Your task to perform on an android device: Search for lg ultragear on costco.com, select the first entry, and add it to the cart. Image 0: 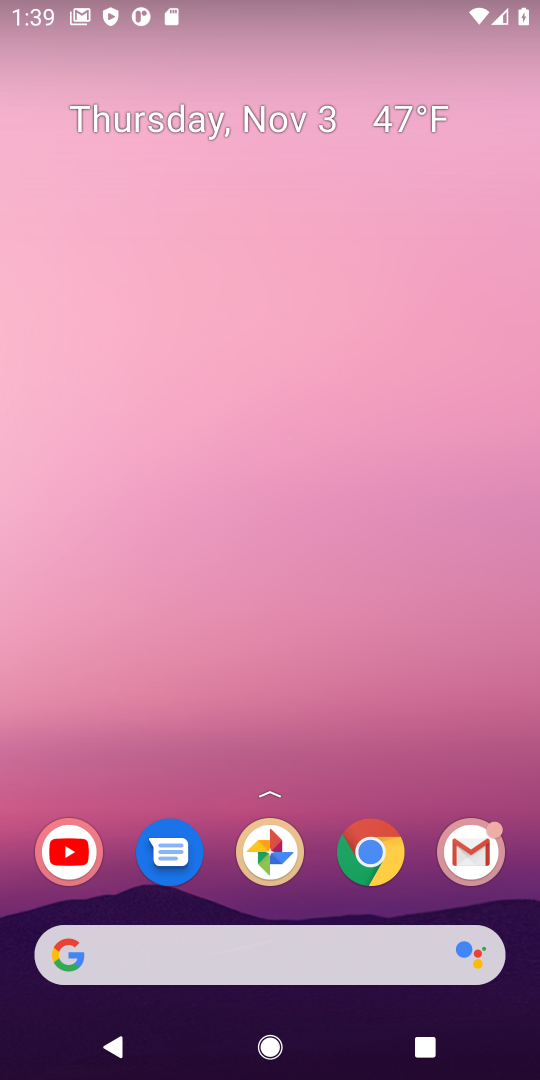
Step 0: click (377, 862)
Your task to perform on an android device: Search for lg ultragear on costco.com, select the first entry, and add it to the cart. Image 1: 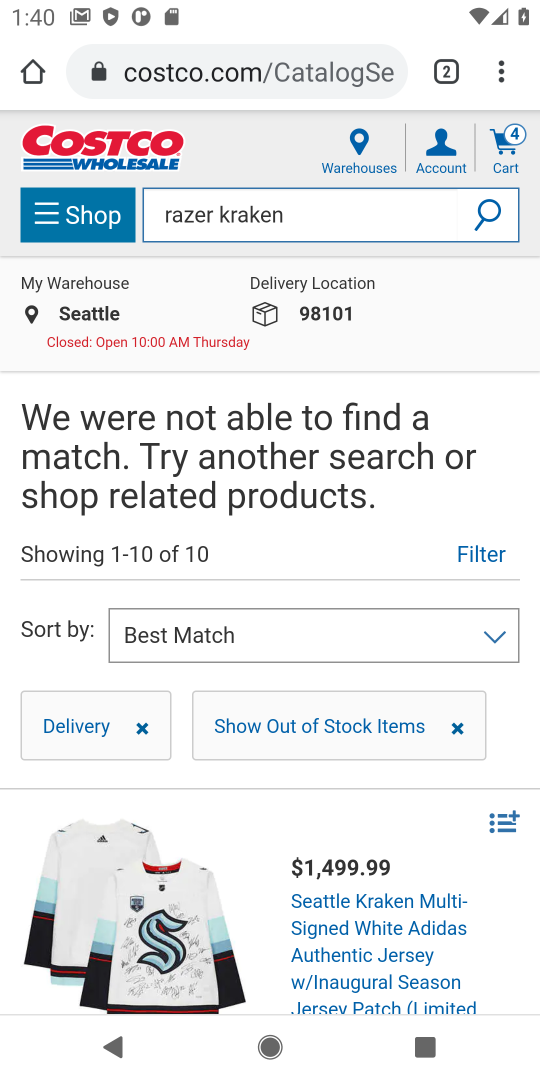
Step 1: click (310, 221)
Your task to perform on an android device: Search for lg ultragear on costco.com, select the first entry, and add it to the cart. Image 2: 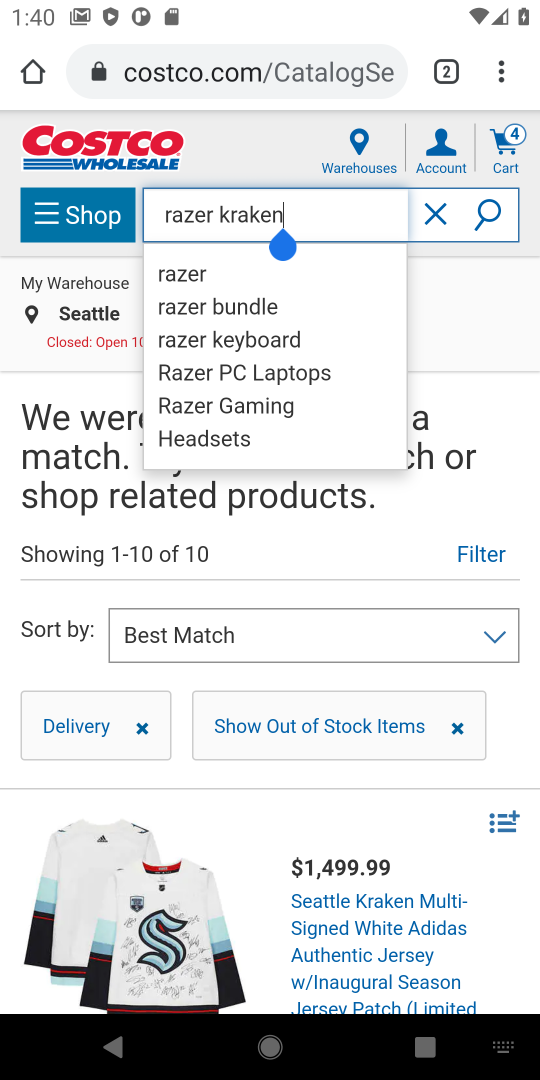
Step 2: click (428, 220)
Your task to perform on an android device: Search for lg ultragear on costco.com, select the first entry, and add it to the cart. Image 3: 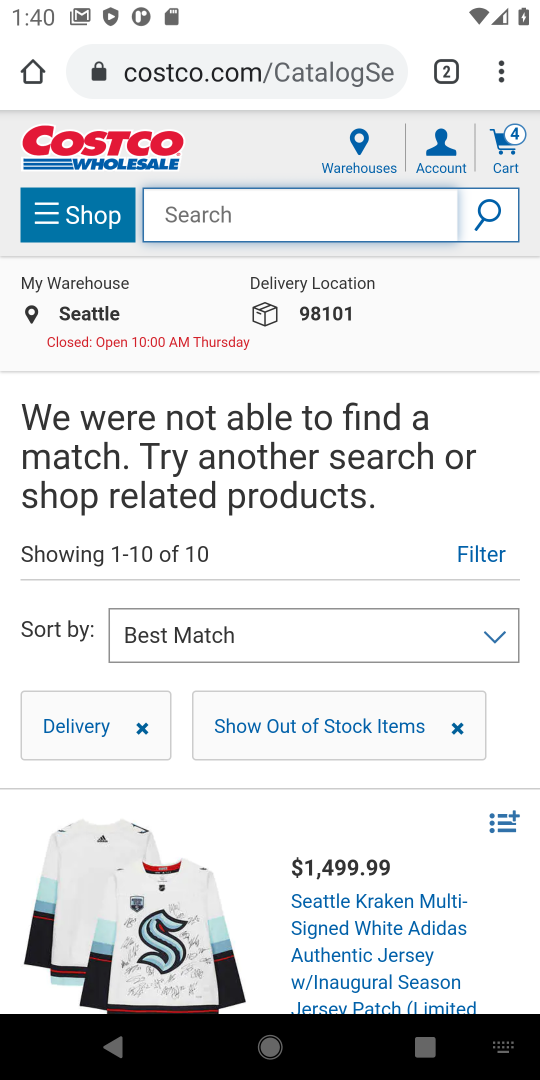
Step 3: type " lg ultragear"
Your task to perform on an android device: Search for lg ultragear on costco.com, select the first entry, and add it to the cart. Image 4: 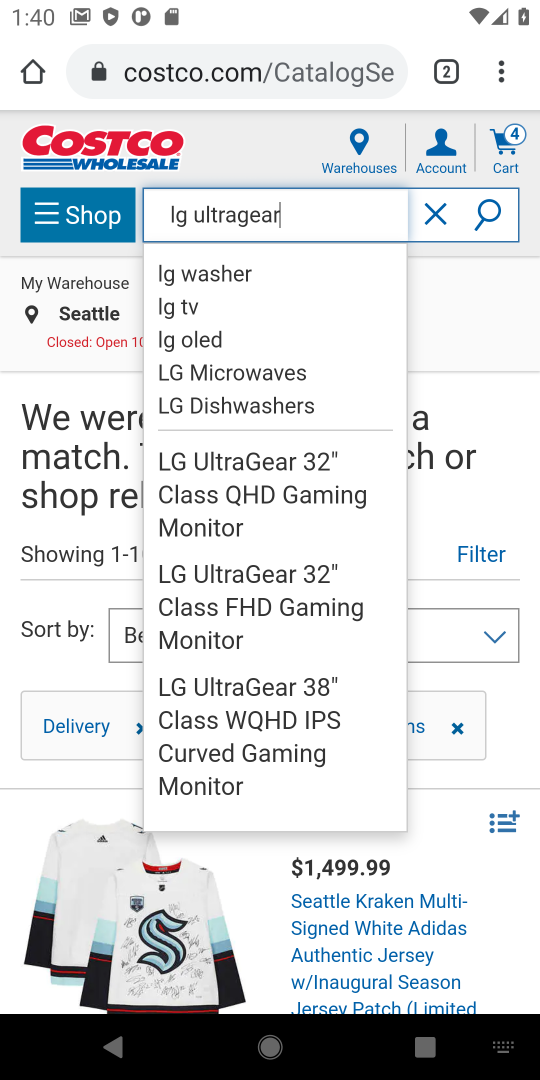
Step 4: click (485, 220)
Your task to perform on an android device: Search for lg ultragear on costco.com, select the first entry, and add it to the cart. Image 5: 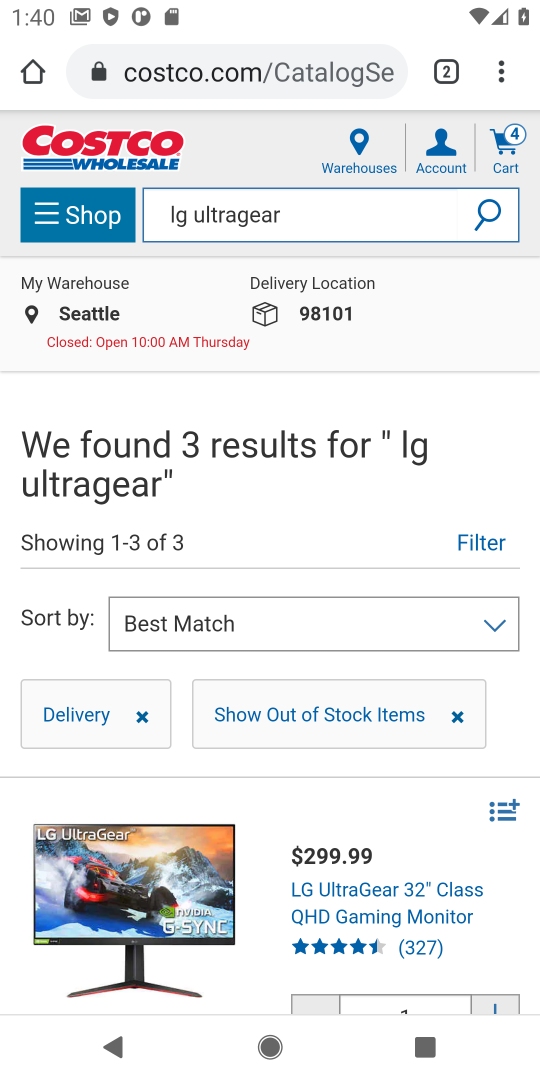
Step 5: click (411, 927)
Your task to perform on an android device: Search for lg ultragear on costco.com, select the first entry, and add it to the cart. Image 6: 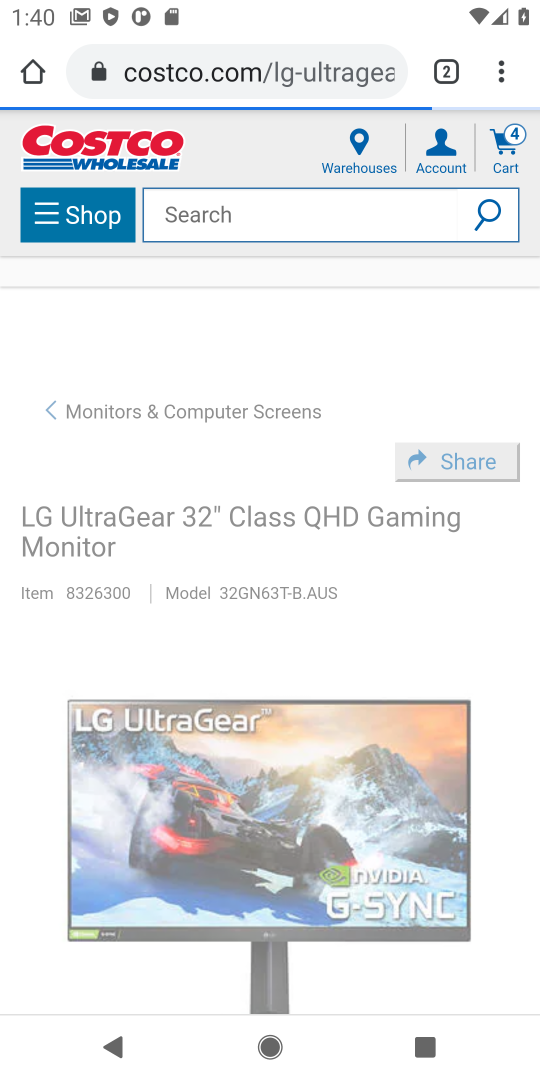
Step 6: drag from (247, 792) to (184, 196)
Your task to perform on an android device: Search for lg ultragear on costco.com, select the first entry, and add it to the cart. Image 7: 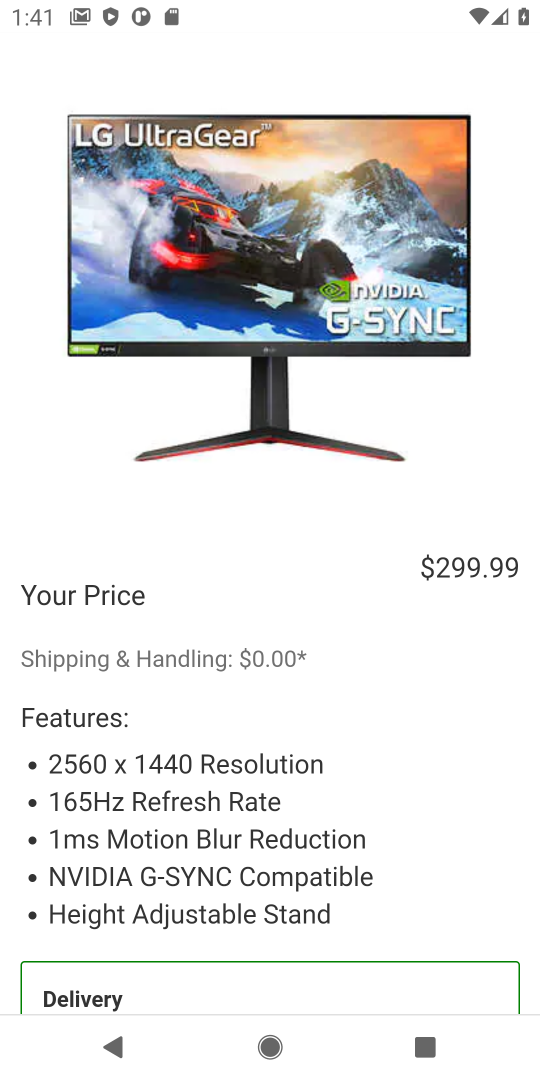
Step 7: drag from (272, 722) to (243, 179)
Your task to perform on an android device: Search for lg ultragear on costco.com, select the first entry, and add it to the cart. Image 8: 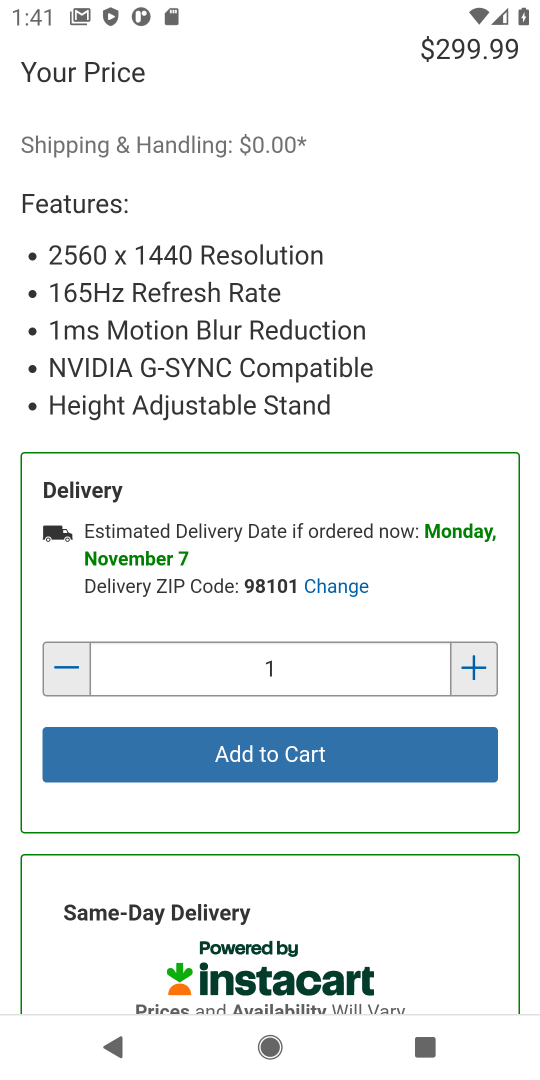
Step 8: click (261, 754)
Your task to perform on an android device: Search for lg ultragear on costco.com, select the first entry, and add it to the cart. Image 9: 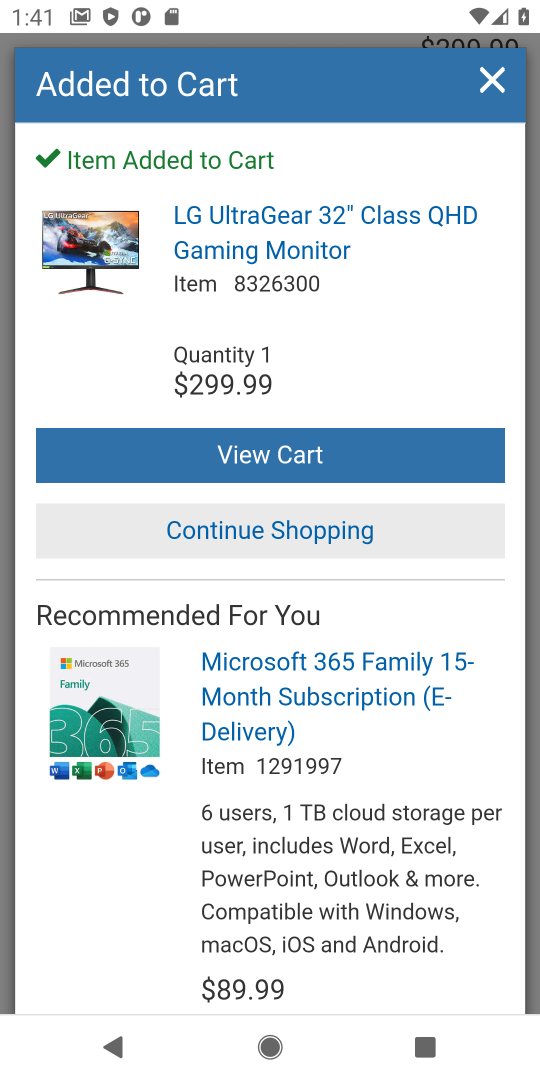
Step 9: task complete